Your task to perform on an android device: Open the map Image 0: 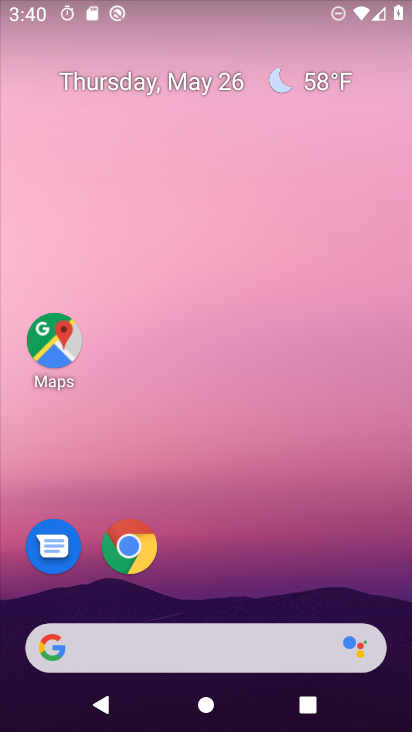
Step 0: click (46, 331)
Your task to perform on an android device: Open the map Image 1: 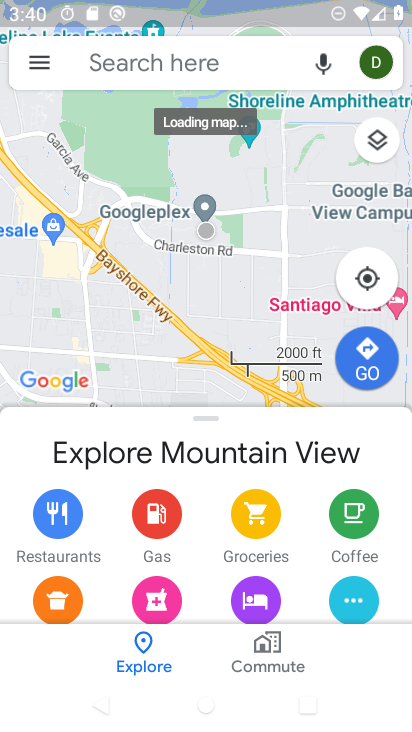
Step 1: task complete